Your task to perform on an android device: see tabs open on other devices in the chrome app Image 0: 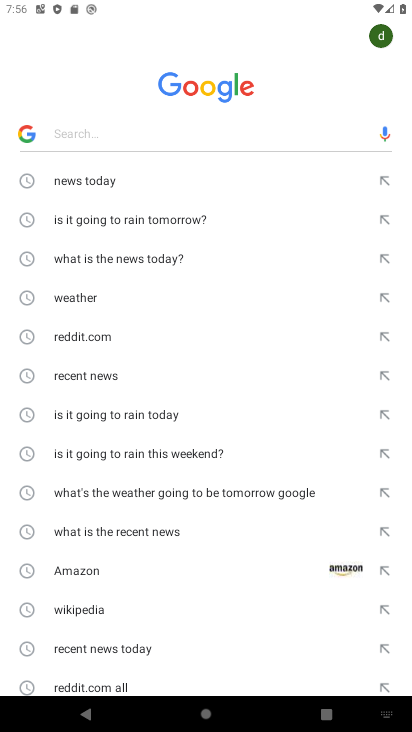
Step 0: press home button
Your task to perform on an android device: see tabs open on other devices in the chrome app Image 1: 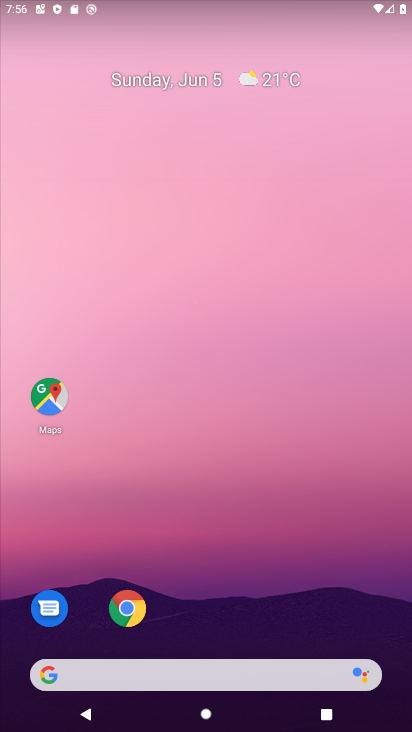
Step 1: drag from (370, 609) to (359, 105)
Your task to perform on an android device: see tabs open on other devices in the chrome app Image 2: 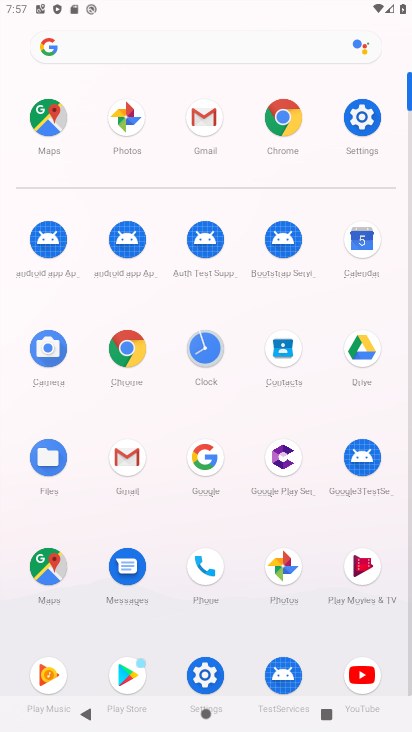
Step 2: click (126, 344)
Your task to perform on an android device: see tabs open on other devices in the chrome app Image 3: 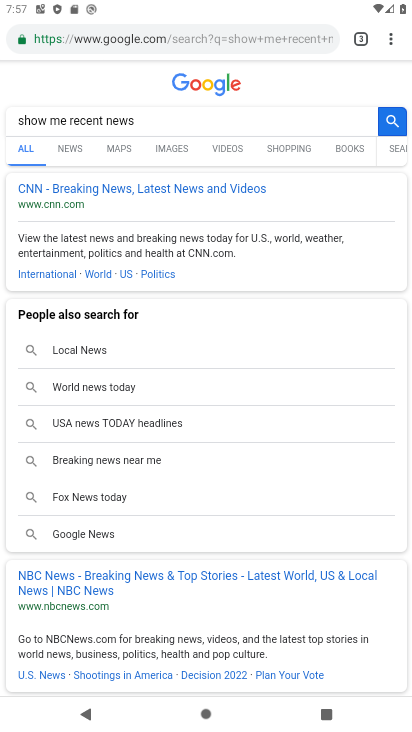
Step 3: click (365, 41)
Your task to perform on an android device: see tabs open on other devices in the chrome app Image 4: 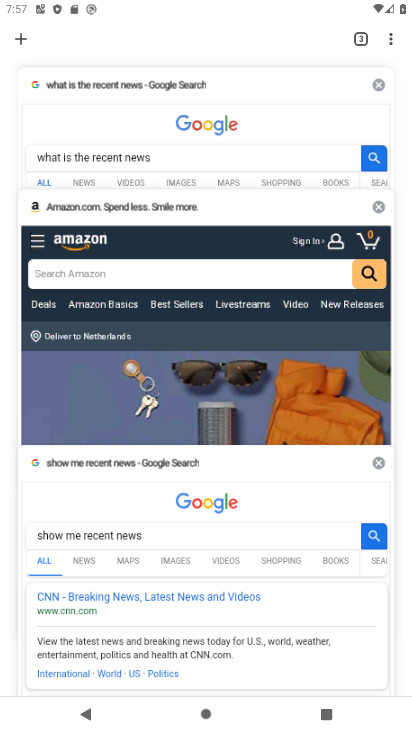
Step 4: task complete